Your task to perform on an android device: change timer sound Image 0: 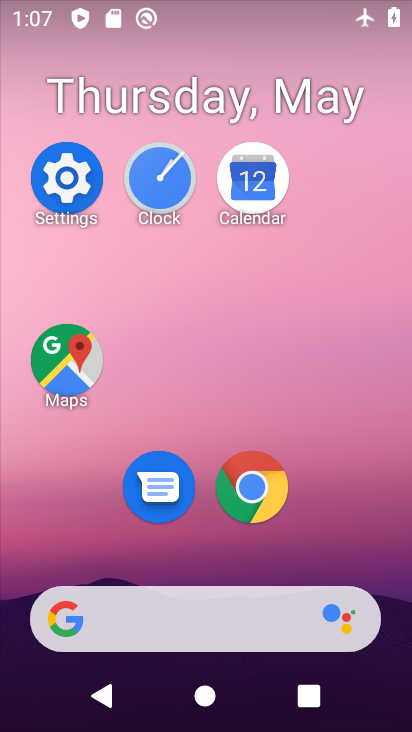
Step 0: click (150, 178)
Your task to perform on an android device: change timer sound Image 1: 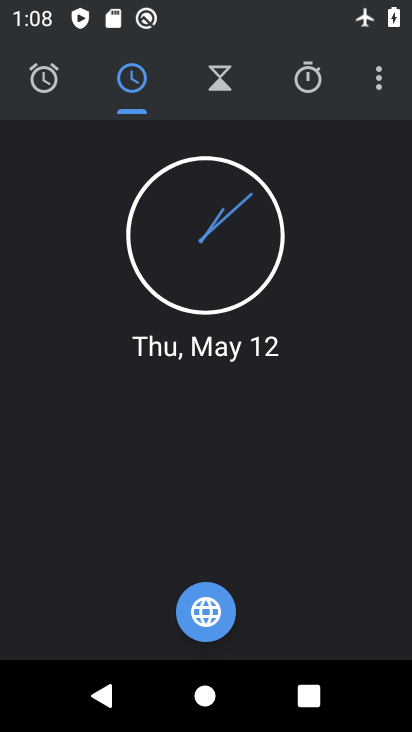
Step 1: click (387, 79)
Your task to perform on an android device: change timer sound Image 2: 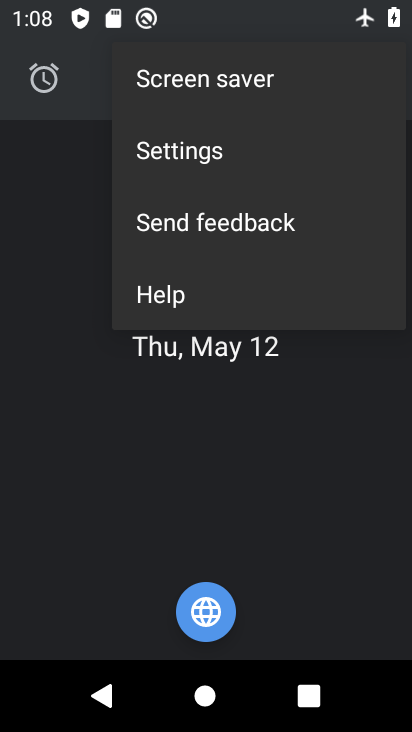
Step 2: click (190, 156)
Your task to perform on an android device: change timer sound Image 3: 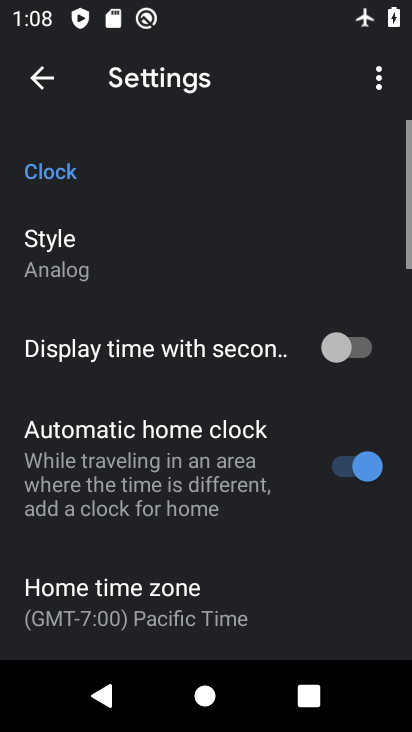
Step 3: drag from (232, 563) to (248, 119)
Your task to perform on an android device: change timer sound Image 4: 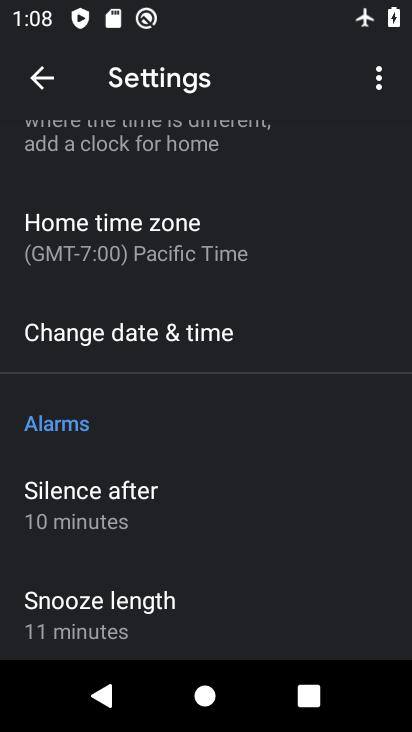
Step 4: drag from (138, 567) to (215, 171)
Your task to perform on an android device: change timer sound Image 5: 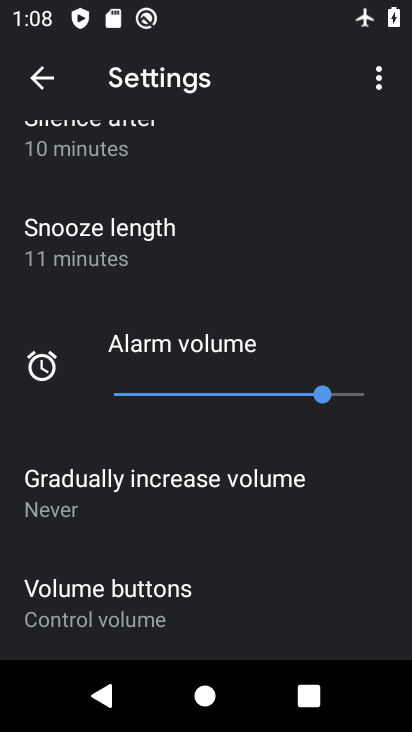
Step 5: drag from (187, 524) to (245, 111)
Your task to perform on an android device: change timer sound Image 6: 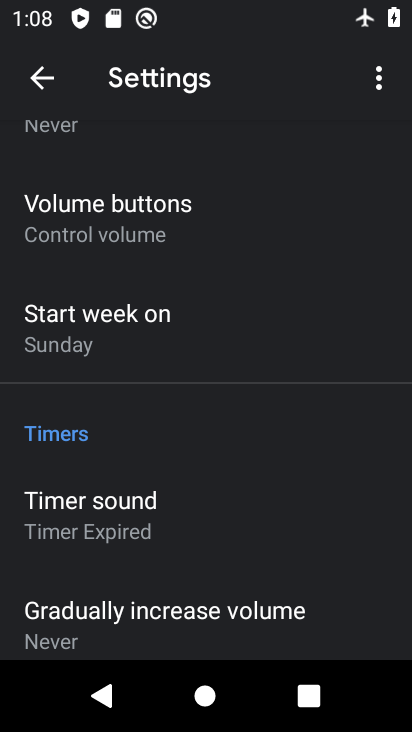
Step 6: click (156, 512)
Your task to perform on an android device: change timer sound Image 7: 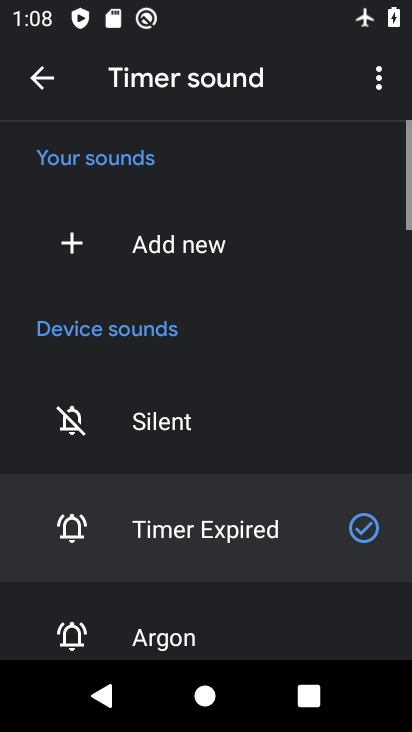
Step 7: click (110, 623)
Your task to perform on an android device: change timer sound Image 8: 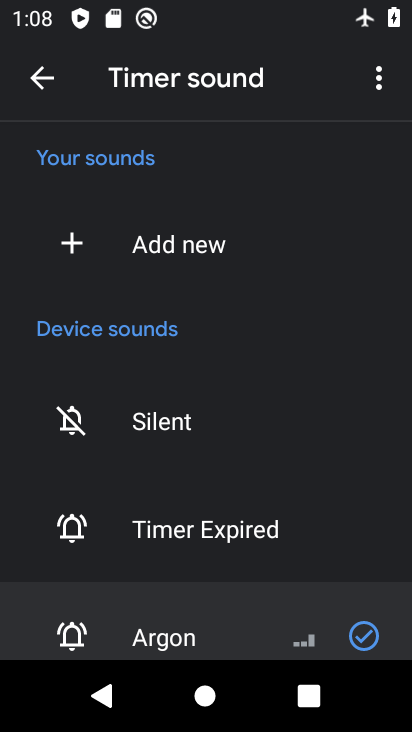
Step 8: task complete